Your task to perform on an android device: read, delete, or share a saved page in the chrome app Image 0: 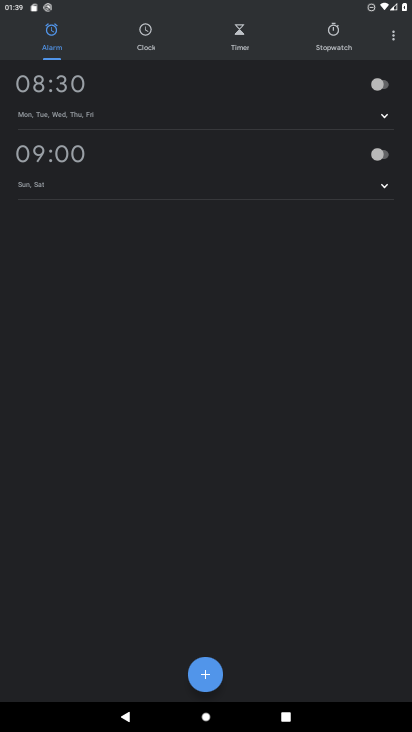
Step 0: press home button
Your task to perform on an android device: read, delete, or share a saved page in the chrome app Image 1: 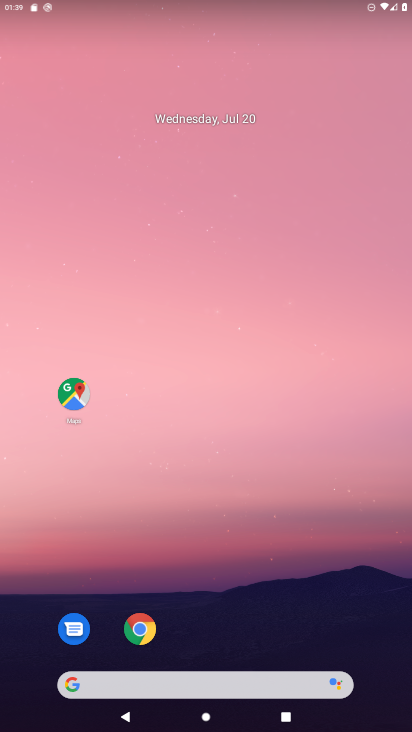
Step 1: click (153, 629)
Your task to perform on an android device: read, delete, or share a saved page in the chrome app Image 2: 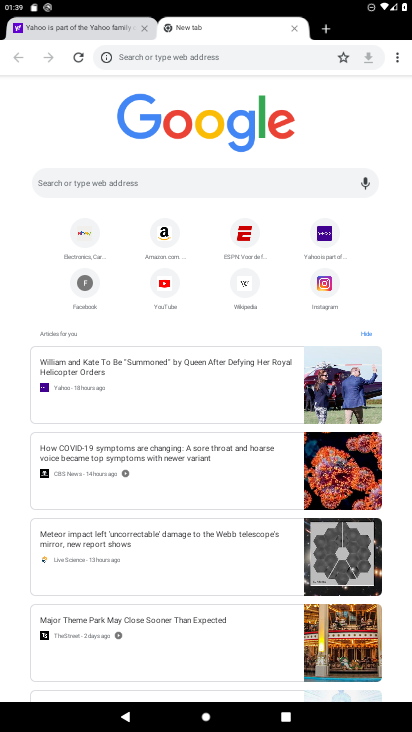
Step 2: click (396, 57)
Your task to perform on an android device: read, delete, or share a saved page in the chrome app Image 3: 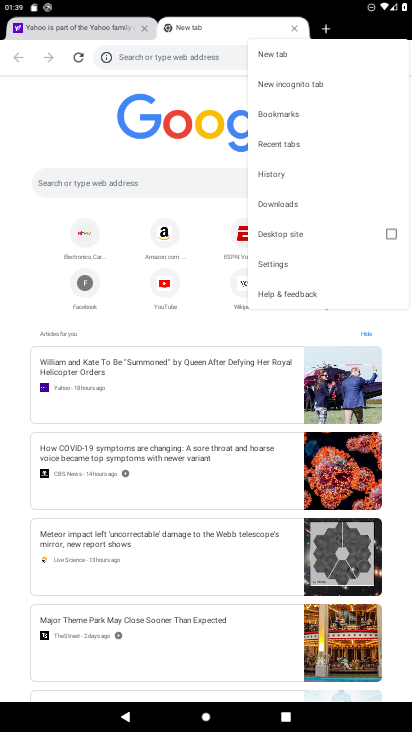
Step 3: click (290, 262)
Your task to perform on an android device: read, delete, or share a saved page in the chrome app Image 4: 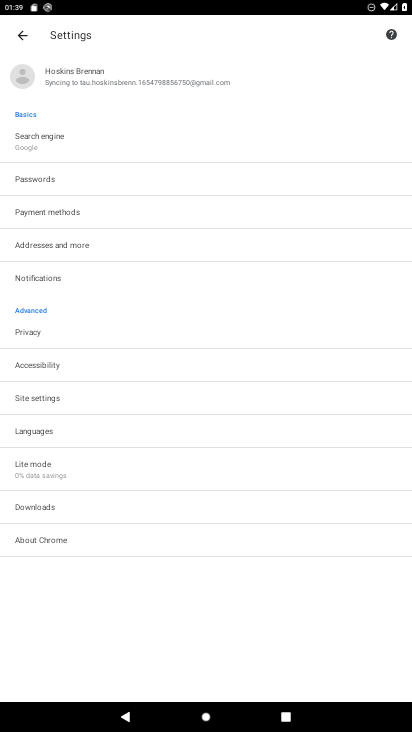
Step 4: task complete